Your task to perform on an android device: Show me productivity apps on the Play Store Image 0: 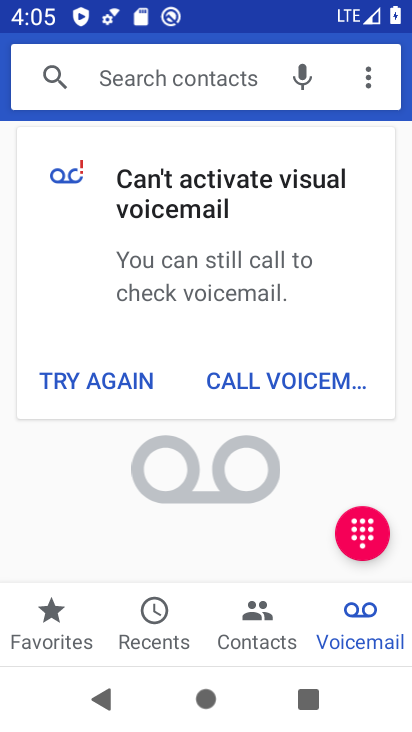
Step 0: press home button
Your task to perform on an android device: Show me productivity apps on the Play Store Image 1: 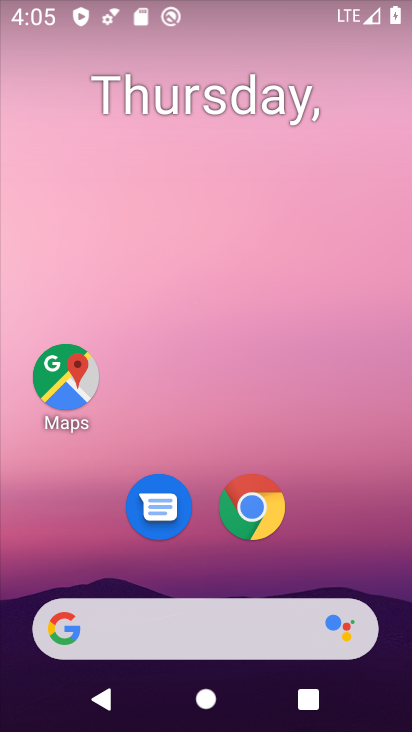
Step 1: drag from (341, 510) to (257, 47)
Your task to perform on an android device: Show me productivity apps on the Play Store Image 2: 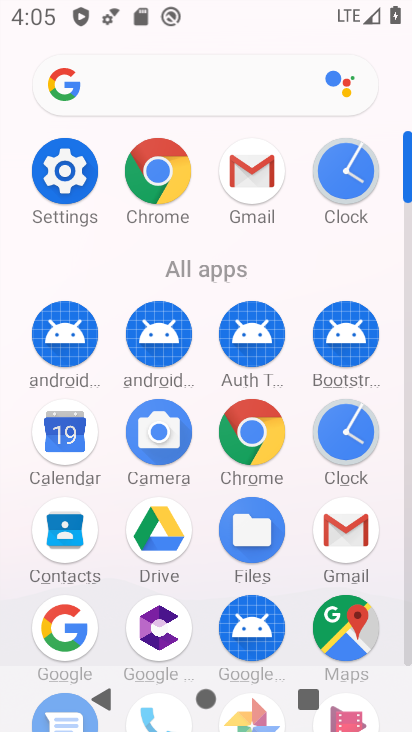
Step 2: click (403, 636)
Your task to perform on an android device: Show me productivity apps on the Play Store Image 3: 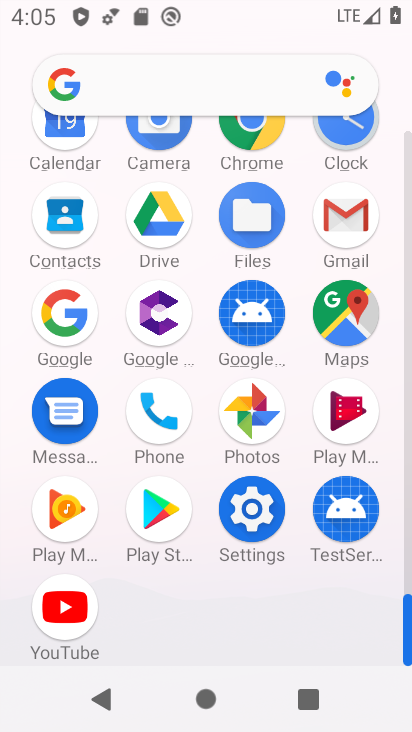
Step 3: click (154, 509)
Your task to perform on an android device: Show me productivity apps on the Play Store Image 4: 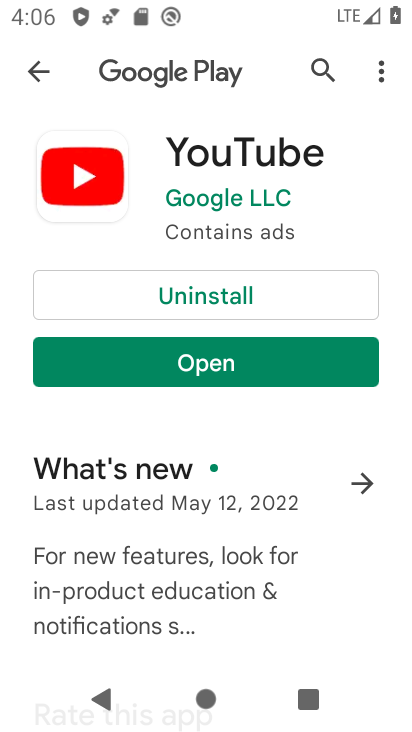
Step 4: click (30, 68)
Your task to perform on an android device: Show me productivity apps on the Play Store Image 5: 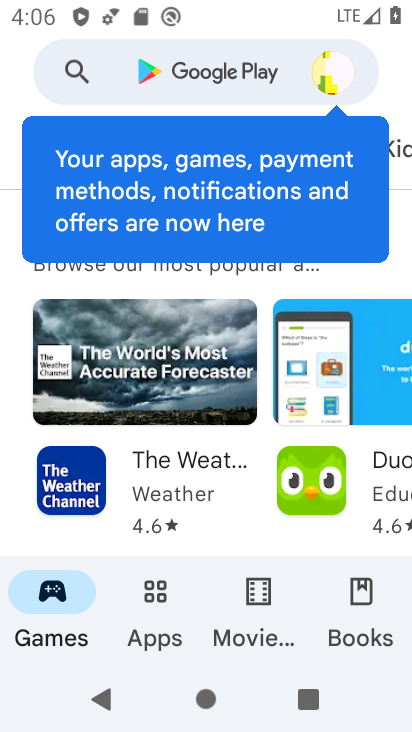
Step 5: click (162, 68)
Your task to perform on an android device: Show me productivity apps on the Play Store Image 6: 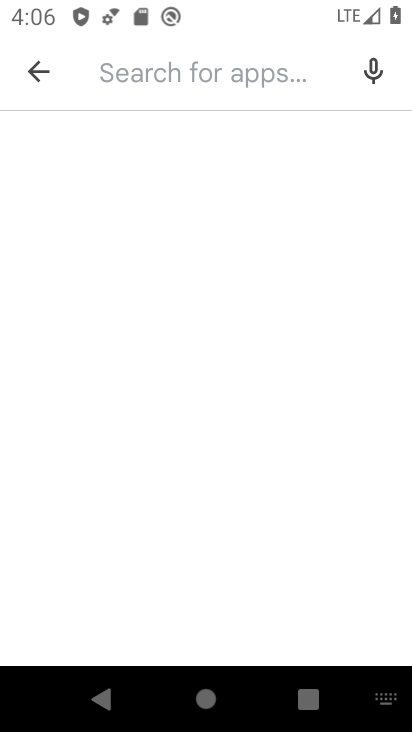
Step 6: type " productivity apps"
Your task to perform on an android device: Show me productivity apps on the Play Store Image 7: 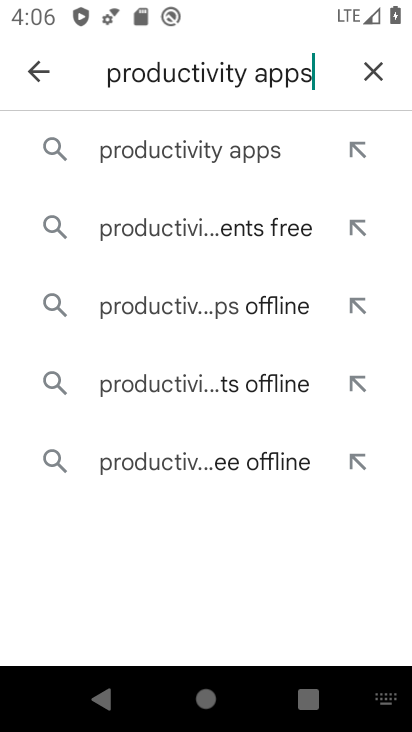
Step 7: click (156, 143)
Your task to perform on an android device: Show me productivity apps on the Play Store Image 8: 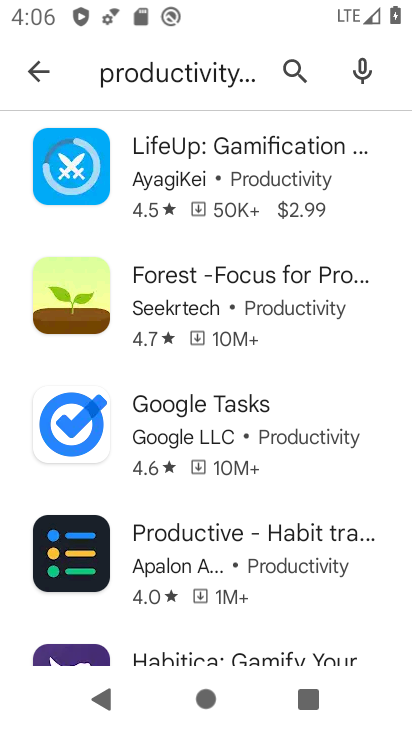
Step 8: task complete